Your task to perform on an android device: Go to eBay Image 0: 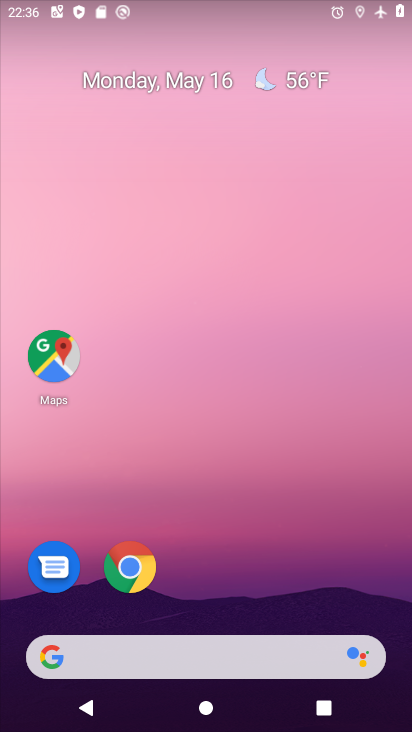
Step 0: drag from (250, 594) to (244, 173)
Your task to perform on an android device: Go to eBay Image 1: 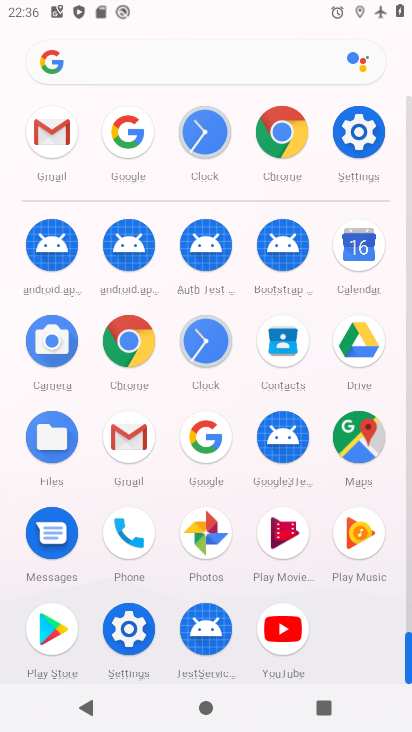
Step 1: click (276, 121)
Your task to perform on an android device: Go to eBay Image 2: 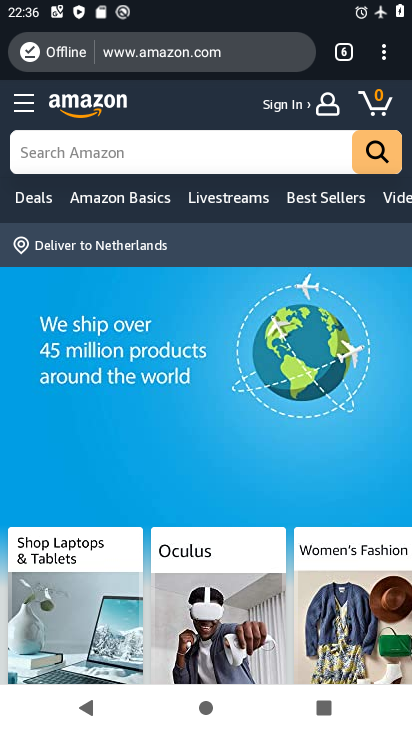
Step 2: click (385, 52)
Your task to perform on an android device: Go to eBay Image 3: 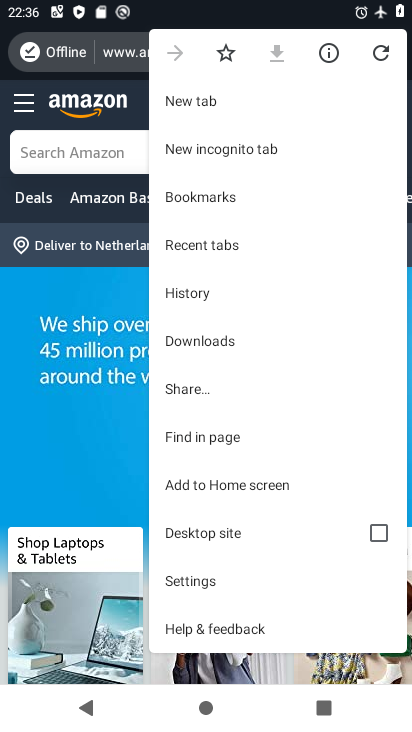
Step 3: click (226, 90)
Your task to perform on an android device: Go to eBay Image 4: 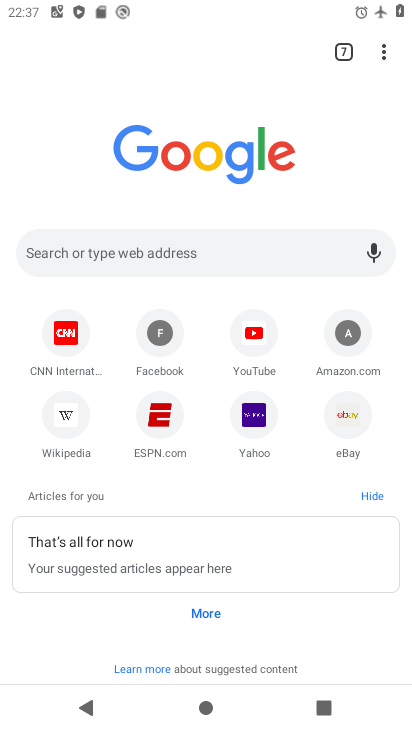
Step 4: click (342, 405)
Your task to perform on an android device: Go to eBay Image 5: 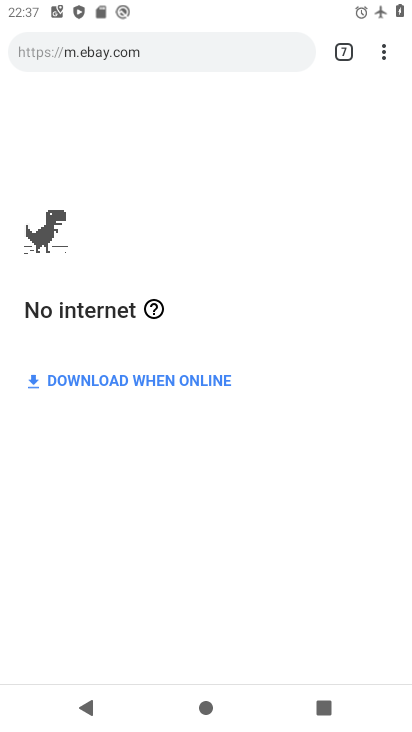
Step 5: task complete